Your task to perform on an android device: Go to Reddit.com Image 0: 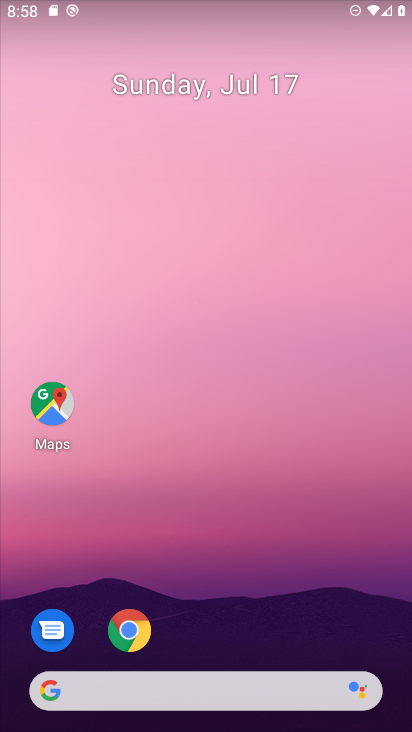
Step 0: click (129, 636)
Your task to perform on an android device: Go to Reddit.com Image 1: 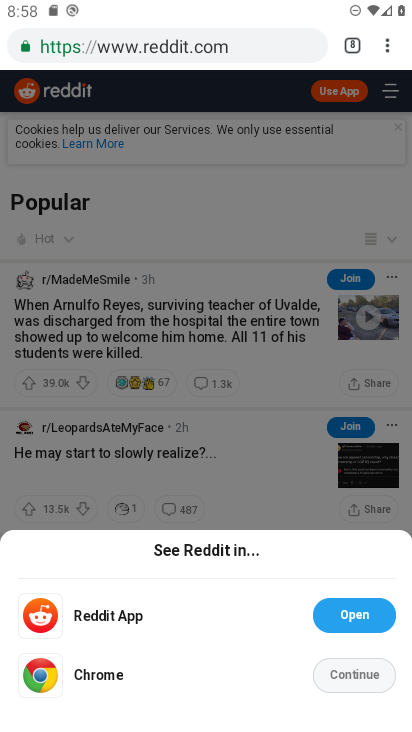
Step 1: task complete